Your task to perform on an android device: Check the weather Image 0: 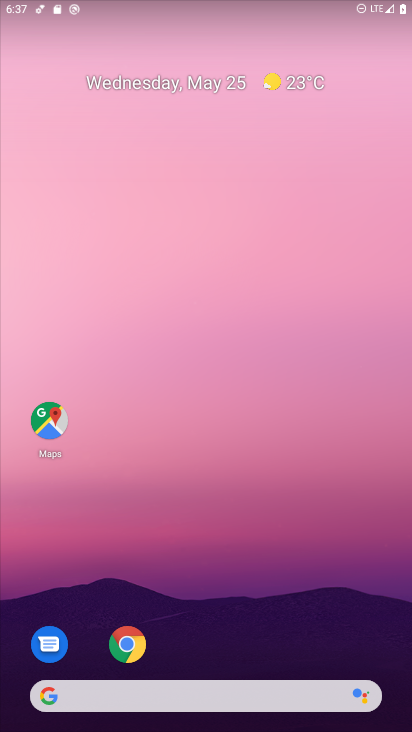
Step 0: drag from (281, 629) to (245, 1)
Your task to perform on an android device: Check the weather Image 1: 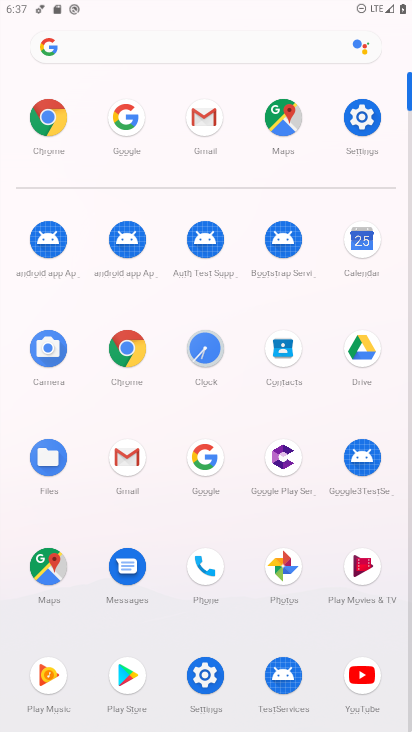
Step 1: click (205, 443)
Your task to perform on an android device: Check the weather Image 2: 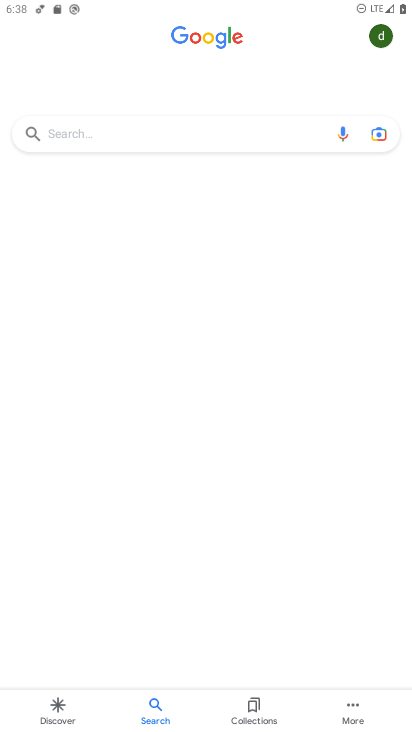
Step 2: click (136, 134)
Your task to perform on an android device: Check the weather Image 3: 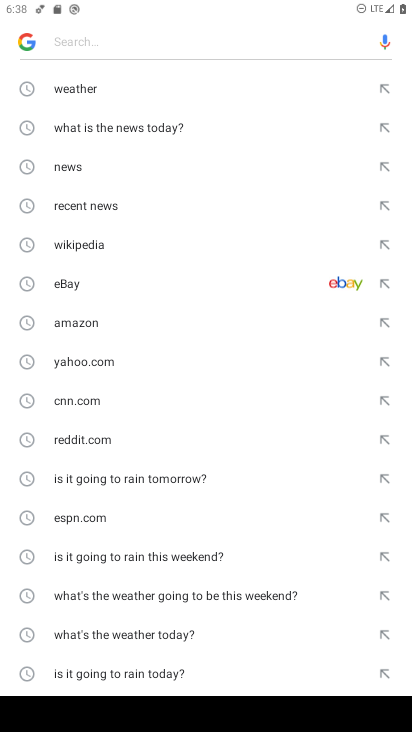
Step 3: click (128, 76)
Your task to perform on an android device: Check the weather Image 4: 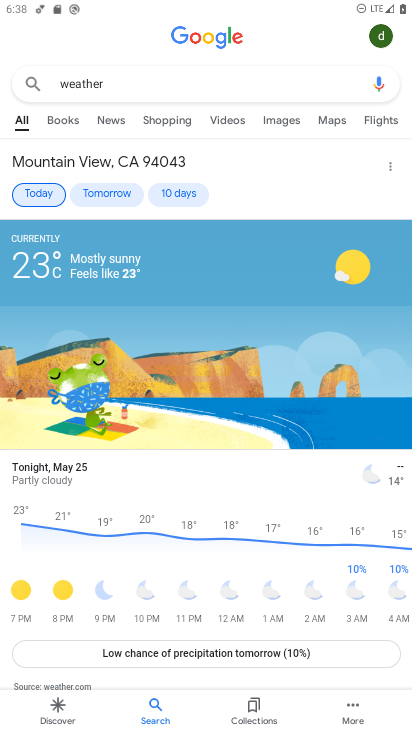
Step 4: task complete